Your task to perform on an android device: add a label to a message in the gmail app Image 0: 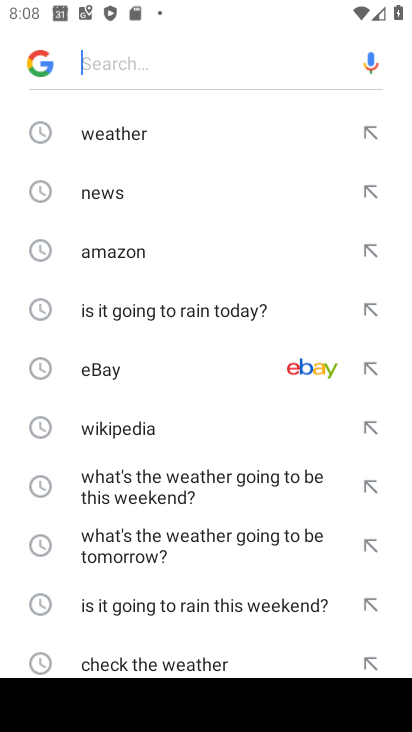
Step 0: press home button
Your task to perform on an android device: add a label to a message in the gmail app Image 1: 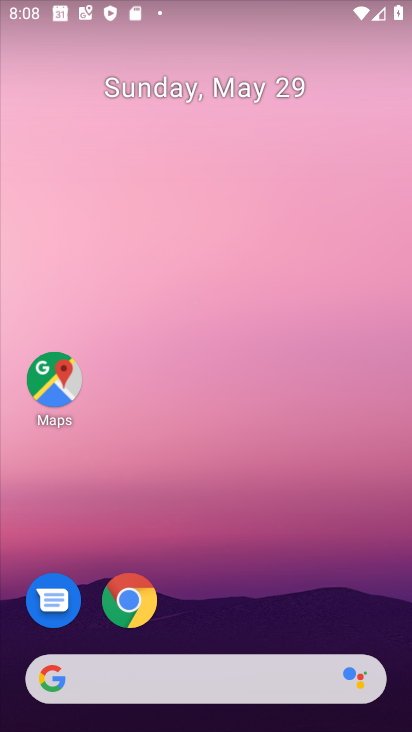
Step 1: drag from (298, 568) to (315, 170)
Your task to perform on an android device: add a label to a message in the gmail app Image 2: 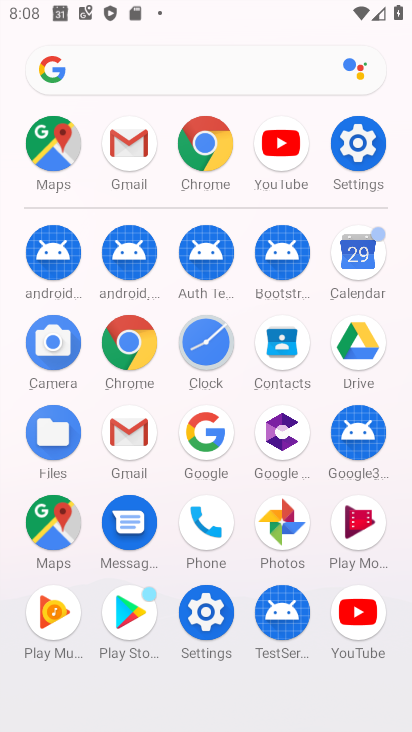
Step 2: click (126, 431)
Your task to perform on an android device: add a label to a message in the gmail app Image 3: 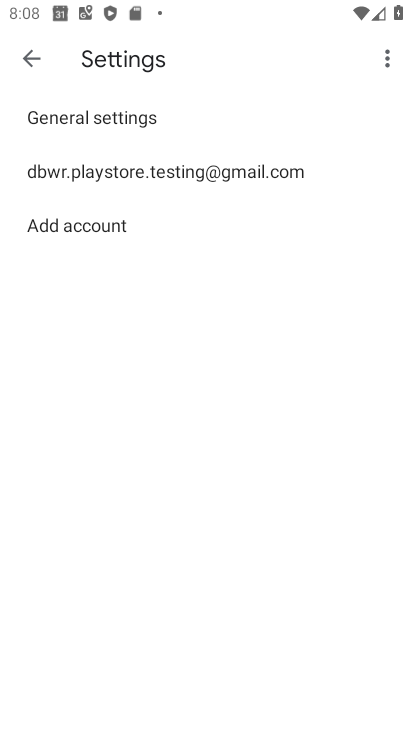
Step 3: click (262, 175)
Your task to perform on an android device: add a label to a message in the gmail app Image 4: 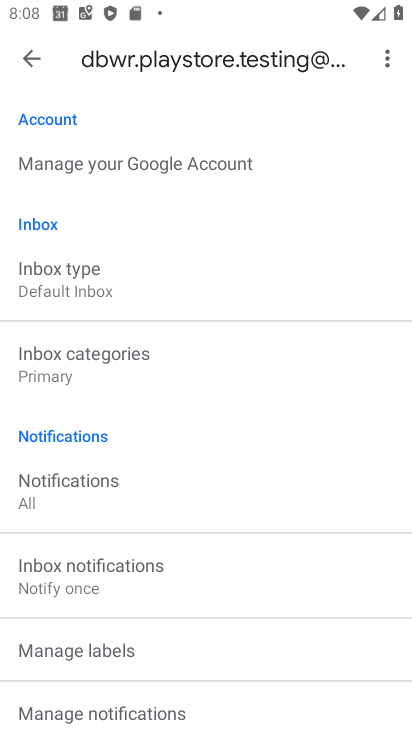
Step 4: click (21, 58)
Your task to perform on an android device: add a label to a message in the gmail app Image 5: 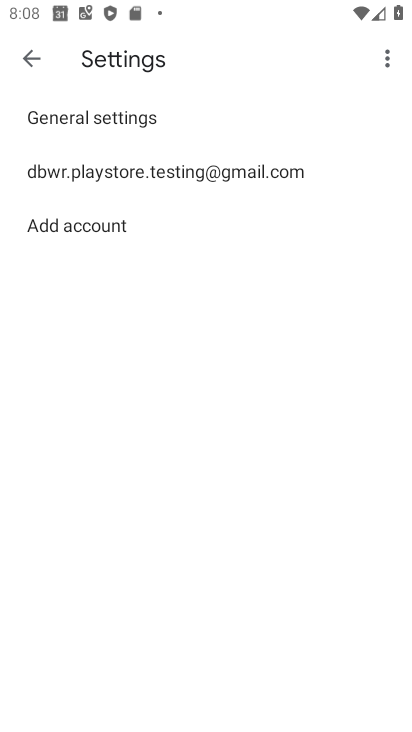
Step 5: click (21, 58)
Your task to perform on an android device: add a label to a message in the gmail app Image 6: 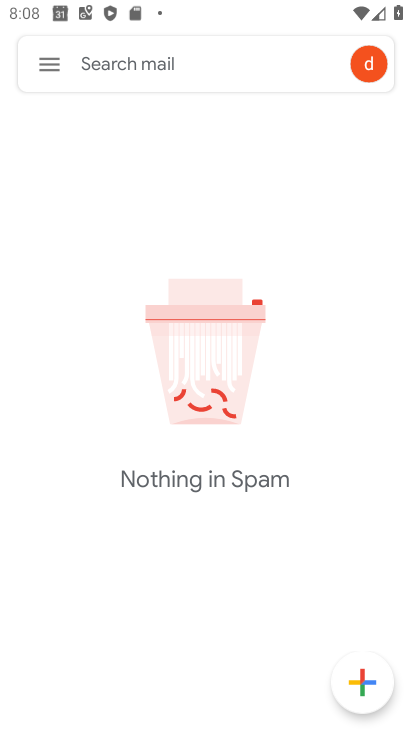
Step 6: click (54, 61)
Your task to perform on an android device: add a label to a message in the gmail app Image 7: 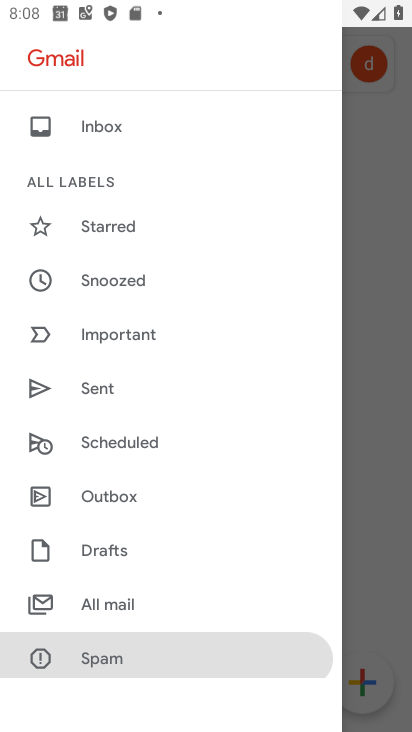
Step 7: drag from (172, 598) to (212, 365)
Your task to perform on an android device: add a label to a message in the gmail app Image 8: 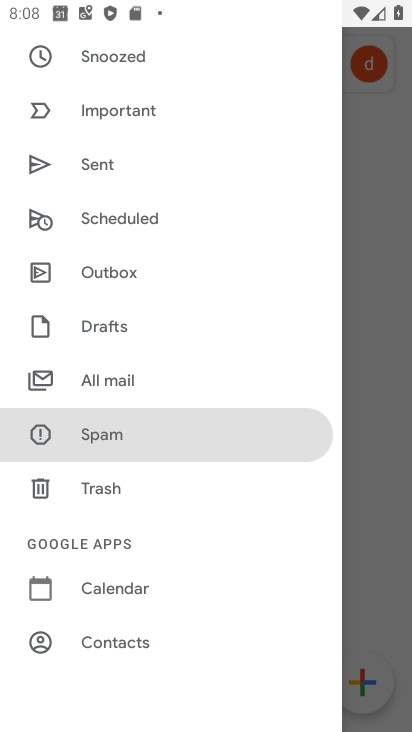
Step 8: click (138, 376)
Your task to perform on an android device: add a label to a message in the gmail app Image 9: 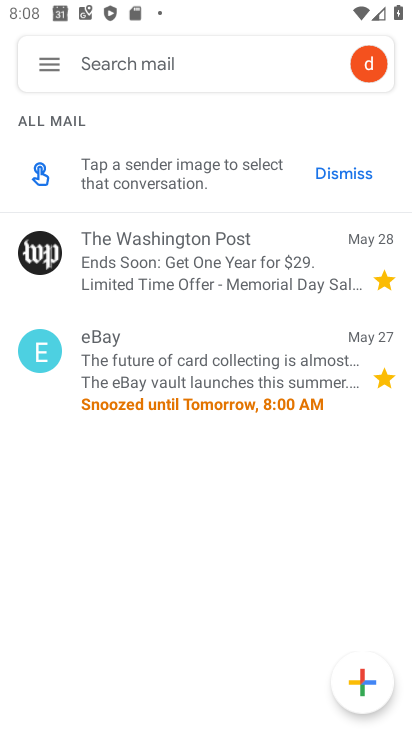
Step 9: click (241, 267)
Your task to perform on an android device: add a label to a message in the gmail app Image 10: 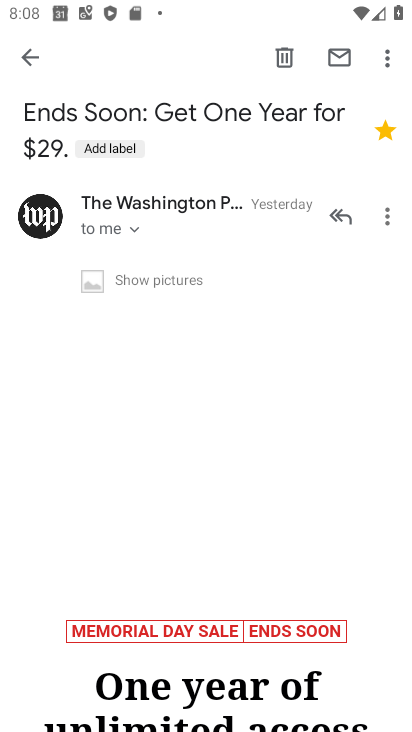
Step 10: click (391, 73)
Your task to perform on an android device: add a label to a message in the gmail app Image 11: 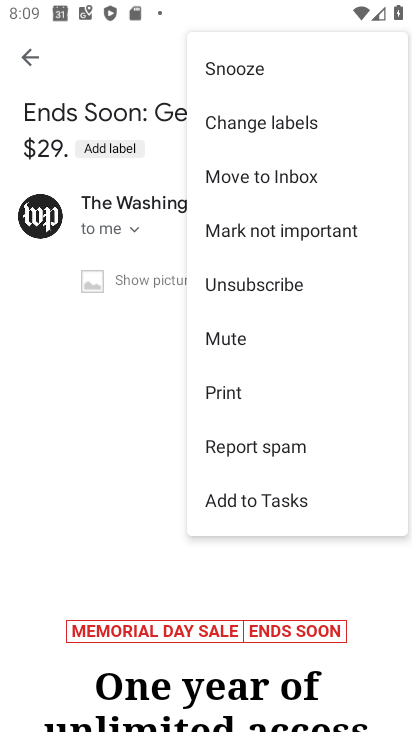
Step 11: click (307, 180)
Your task to perform on an android device: add a label to a message in the gmail app Image 12: 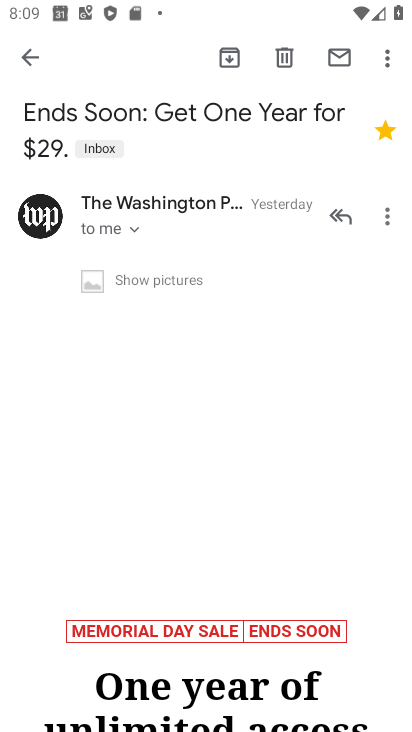
Step 12: task complete